Your task to perform on an android device: clear history in the chrome app Image 0: 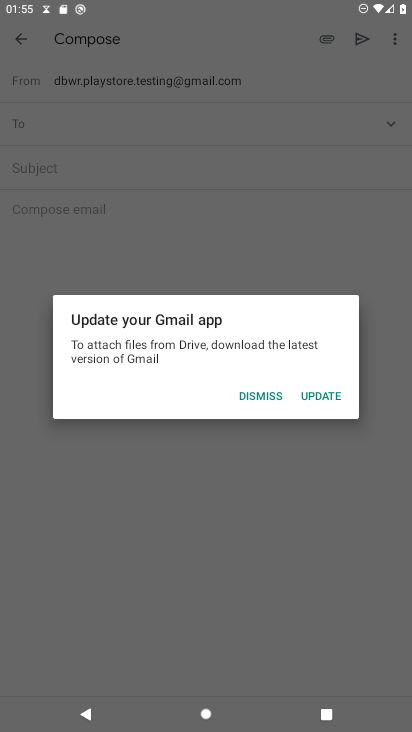
Step 0: press home button
Your task to perform on an android device: clear history in the chrome app Image 1: 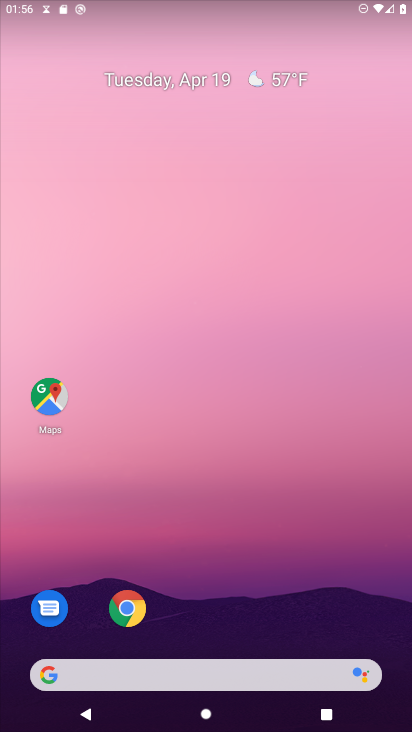
Step 1: drag from (223, 647) to (111, 165)
Your task to perform on an android device: clear history in the chrome app Image 2: 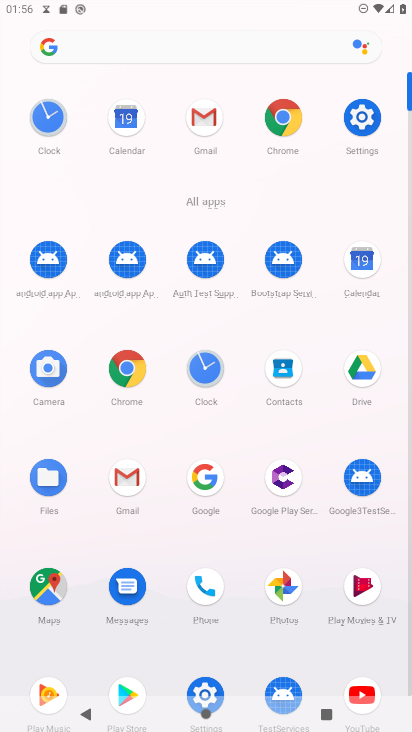
Step 2: click (129, 374)
Your task to perform on an android device: clear history in the chrome app Image 3: 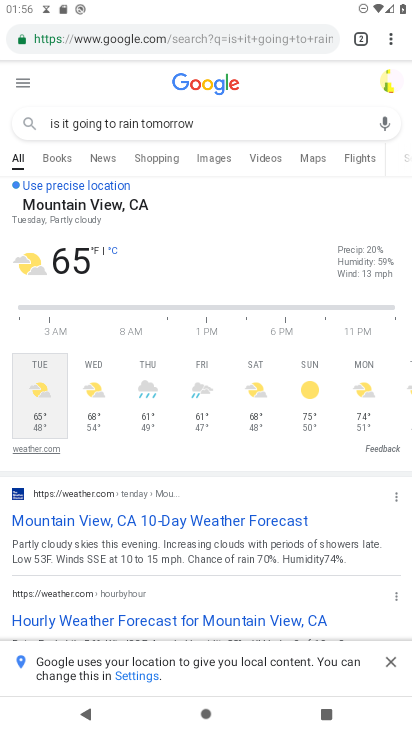
Step 3: click (389, 42)
Your task to perform on an android device: clear history in the chrome app Image 4: 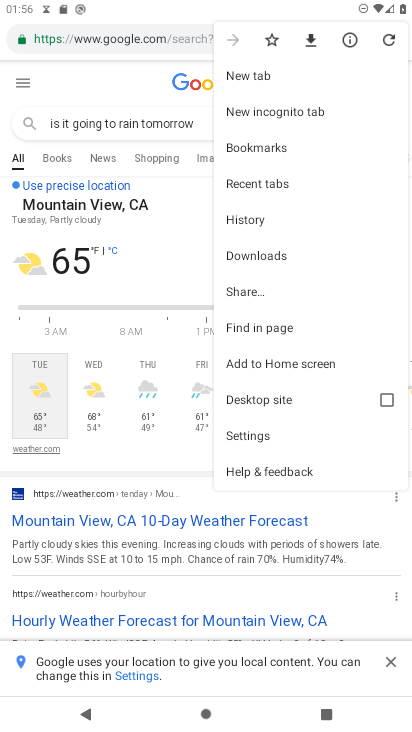
Step 4: click (243, 218)
Your task to perform on an android device: clear history in the chrome app Image 5: 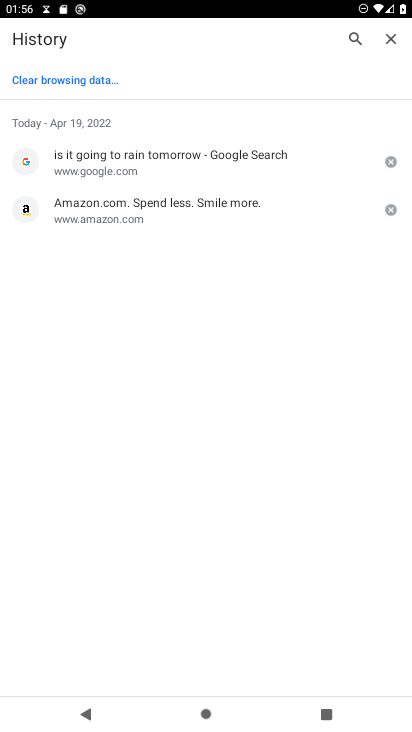
Step 5: click (51, 79)
Your task to perform on an android device: clear history in the chrome app Image 6: 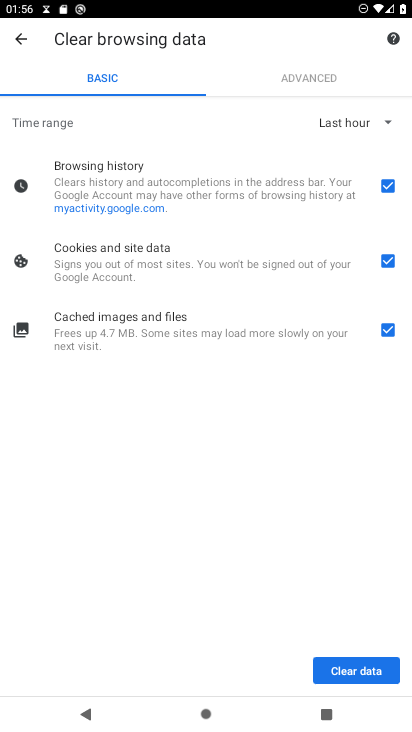
Step 6: click (354, 675)
Your task to perform on an android device: clear history in the chrome app Image 7: 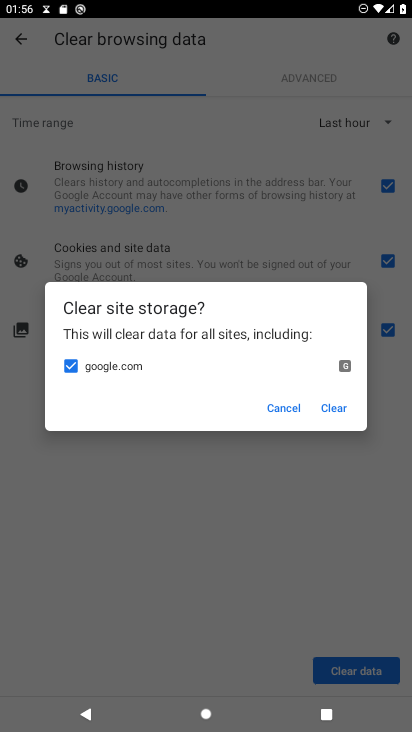
Step 7: click (344, 409)
Your task to perform on an android device: clear history in the chrome app Image 8: 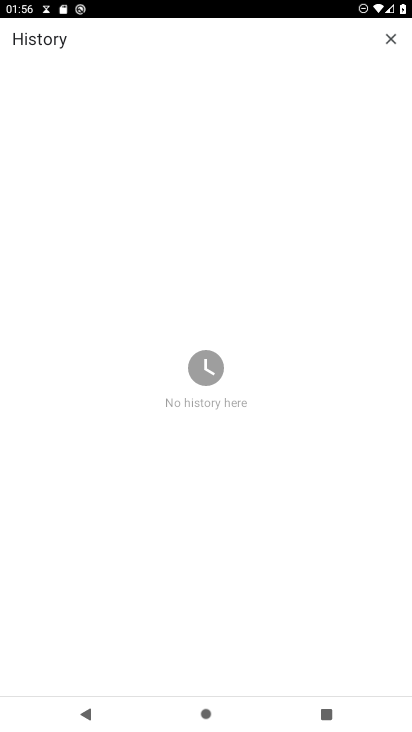
Step 8: task complete